Your task to perform on an android device: Open Amazon Image 0: 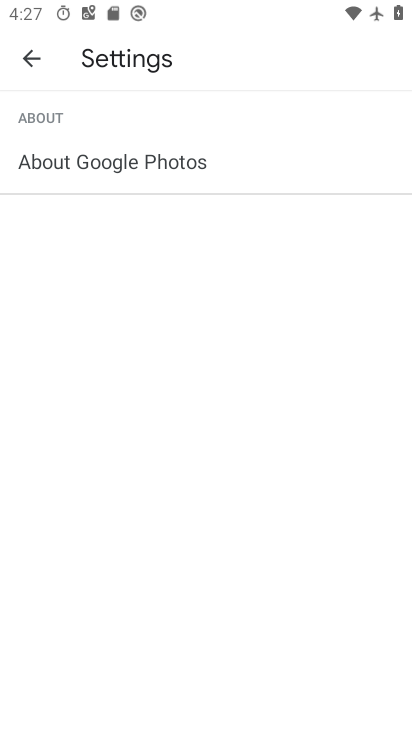
Step 0: press home button
Your task to perform on an android device: Open Amazon Image 1: 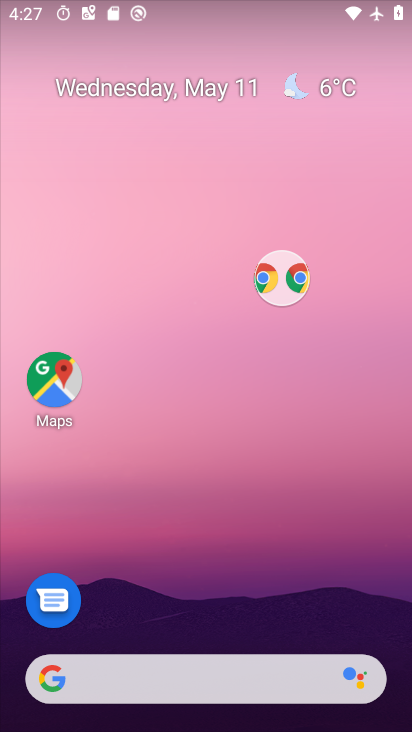
Step 1: click (89, 32)
Your task to perform on an android device: Open Amazon Image 2: 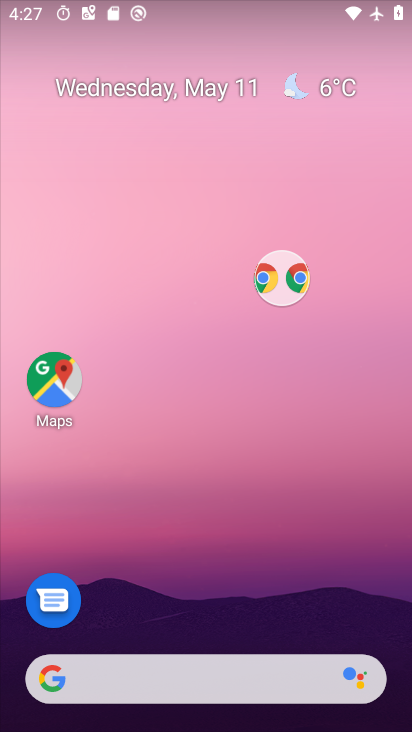
Step 2: drag from (311, 576) to (195, 41)
Your task to perform on an android device: Open Amazon Image 3: 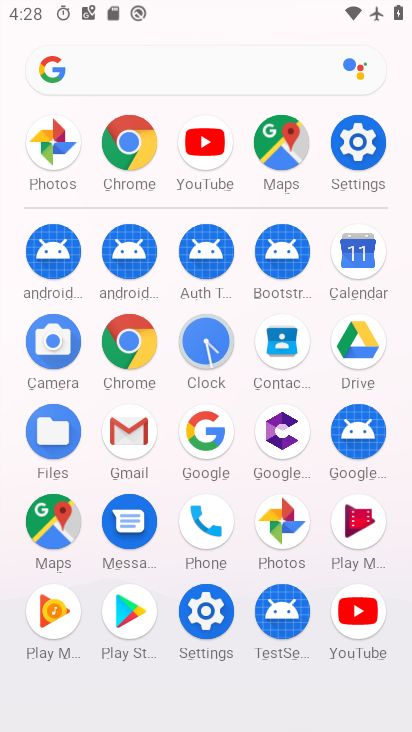
Step 3: click (129, 164)
Your task to perform on an android device: Open Amazon Image 4: 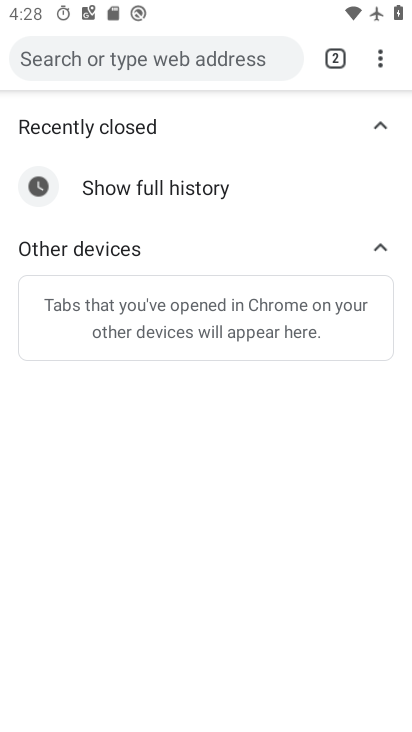
Step 4: drag from (377, 63) to (173, 117)
Your task to perform on an android device: Open Amazon Image 5: 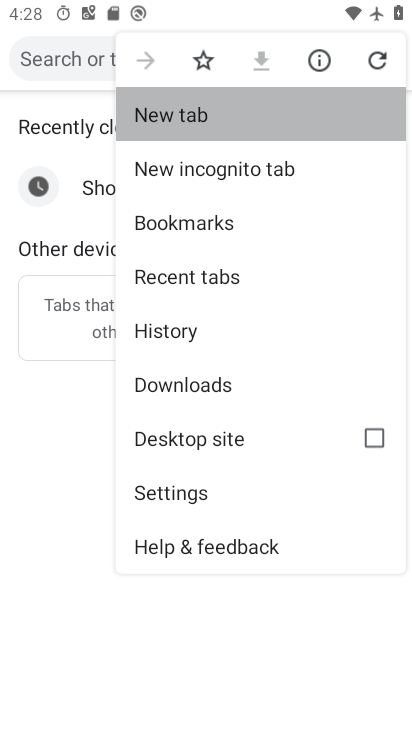
Step 5: click (173, 117)
Your task to perform on an android device: Open Amazon Image 6: 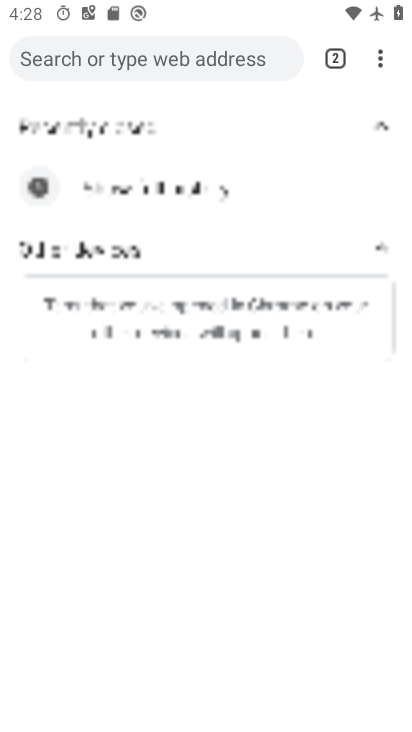
Step 6: click (173, 117)
Your task to perform on an android device: Open Amazon Image 7: 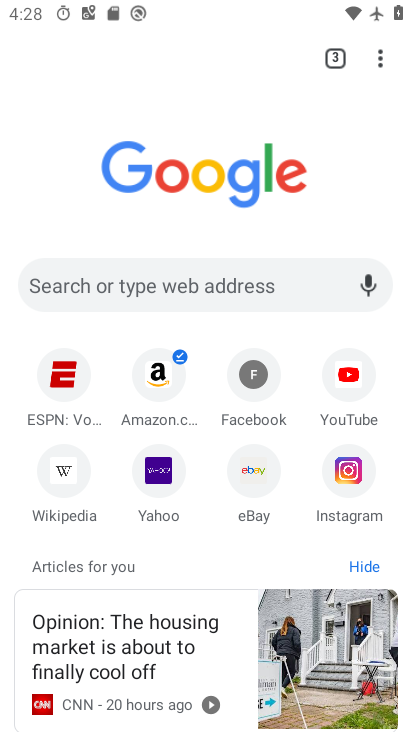
Step 7: click (159, 378)
Your task to perform on an android device: Open Amazon Image 8: 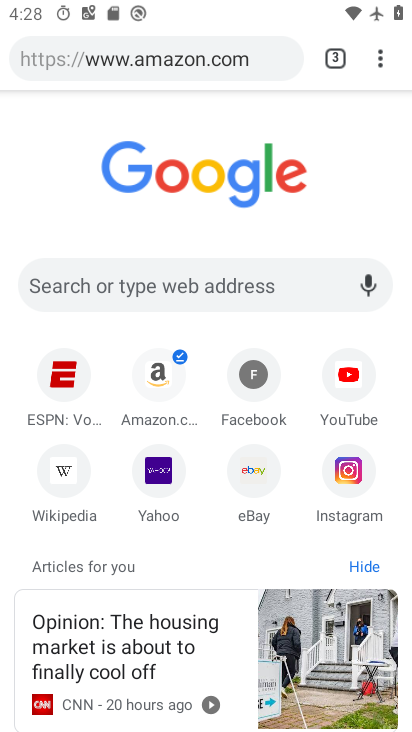
Step 8: click (147, 378)
Your task to perform on an android device: Open Amazon Image 9: 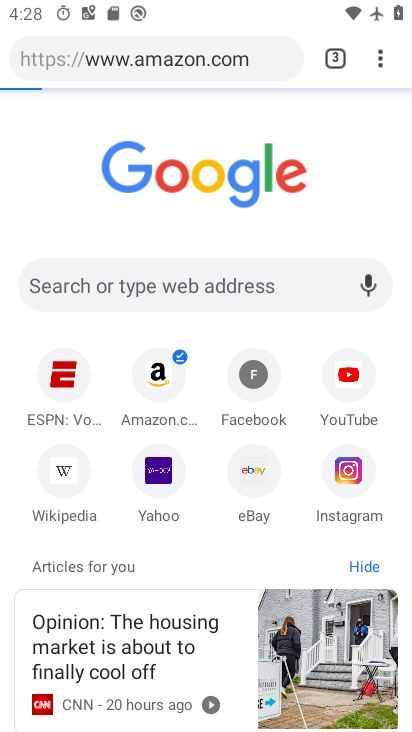
Step 9: click (147, 378)
Your task to perform on an android device: Open Amazon Image 10: 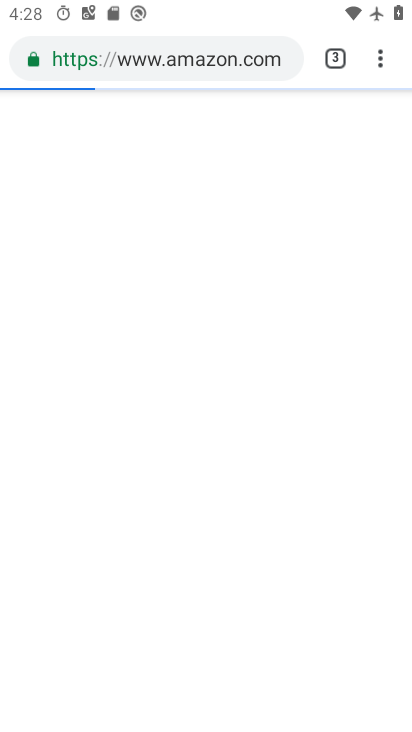
Step 10: click (149, 376)
Your task to perform on an android device: Open Amazon Image 11: 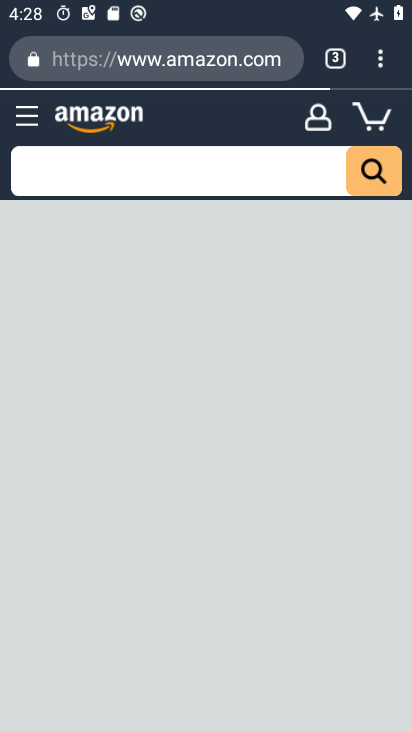
Step 11: click (152, 375)
Your task to perform on an android device: Open Amazon Image 12: 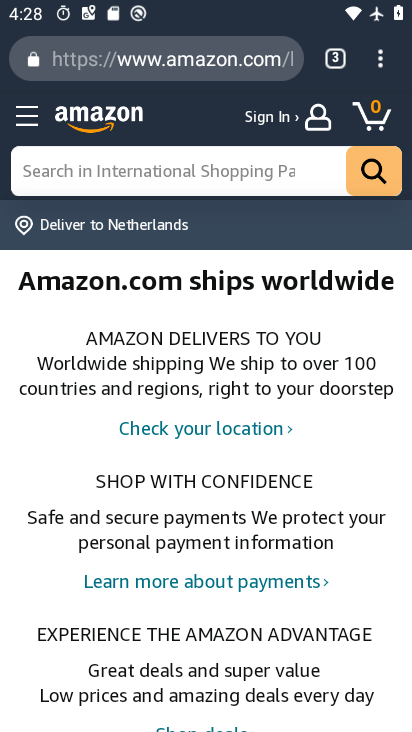
Step 12: task complete